Your task to perform on an android device: see creations saved in the google photos Image 0: 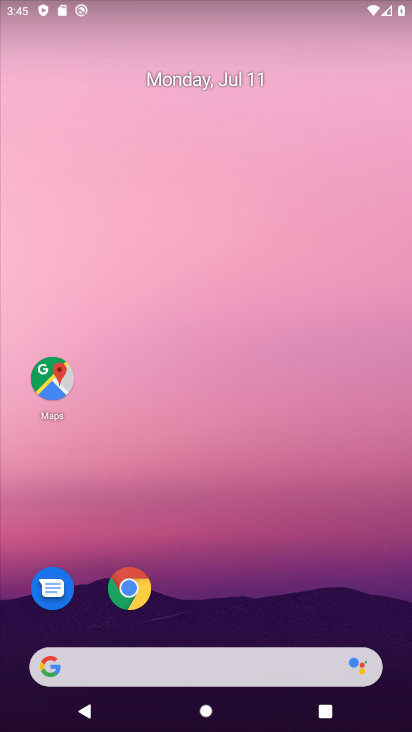
Step 0: drag from (200, 657) to (243, 94)
Your task to perform on an android device: see creations saved in the google photos Image 1: 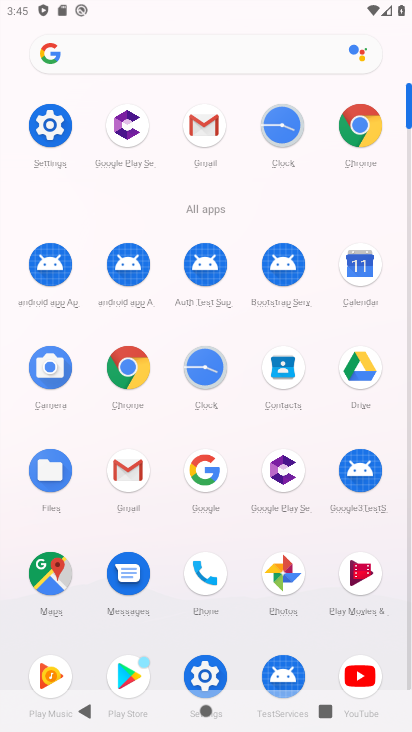
Step 1: click (276, 582)
Your task to perform on an android device: see creations saved in the google photos Image 2: 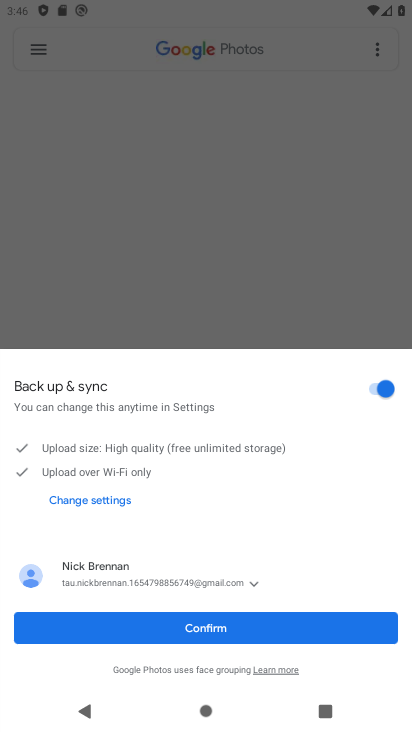
Step 2: click (174, 618)
Your task to perform on an android device: see creations saved in the google photos Image 3: 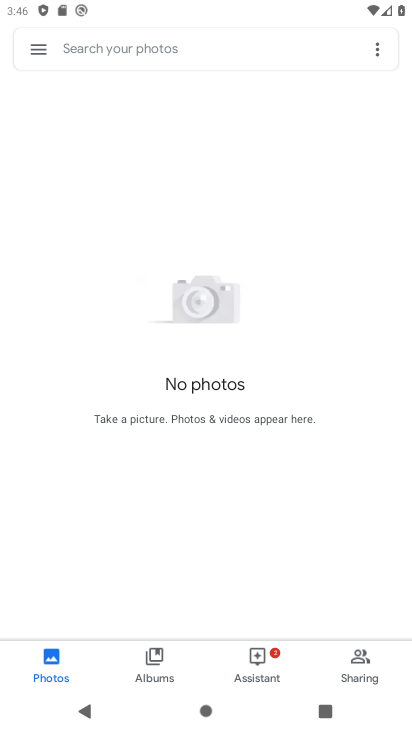
Step 3: click (254, 656)
Your task to perform on an android device: see creations saved in the google photos Image 4: 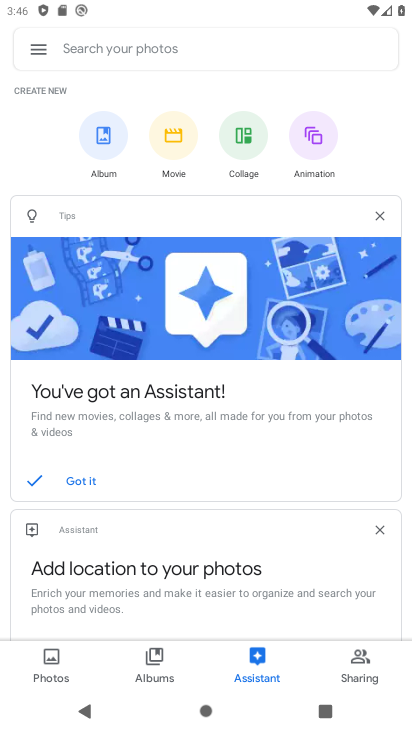
Step 4: task complete